Your task to perform on an android device: Open internet settings Image 0: 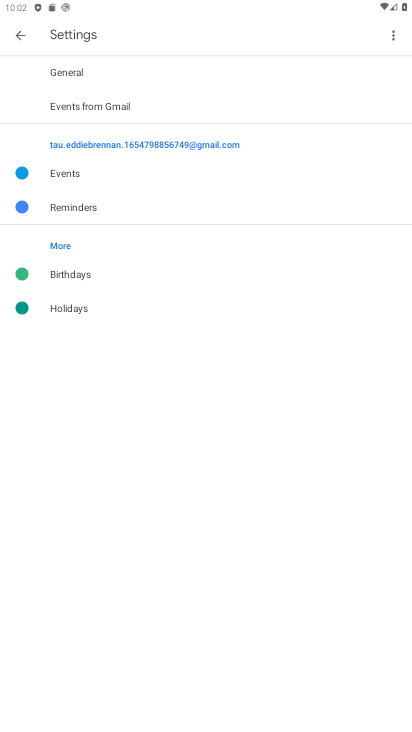
Step 0: press home button
Your task to perform on an android device: Open internet settings Image 1: 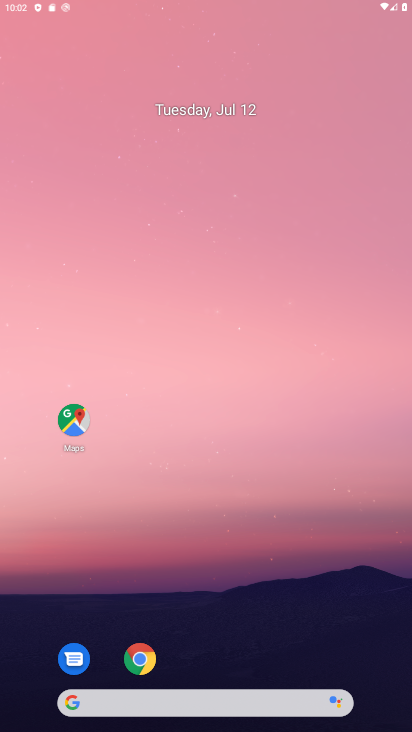
Step 1: drag from (197, 596) to (230, 254)
Your task to perform on an android device: Open internet settings Image 2: 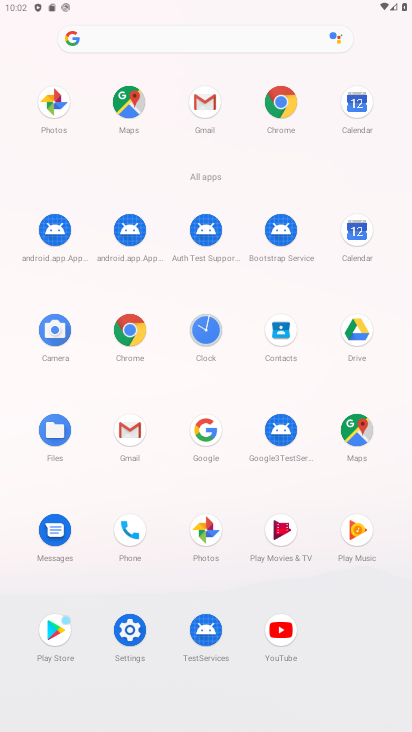
Step 2: click (127, 627)
Your task to perform on an android device: Open internet settings Image 3: 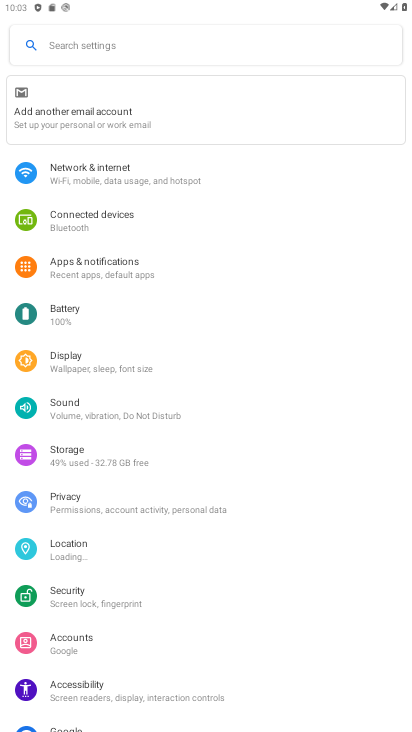
Step 3: click (125, 175)
Your task to perform on an android device: Open internet settings Image 4: 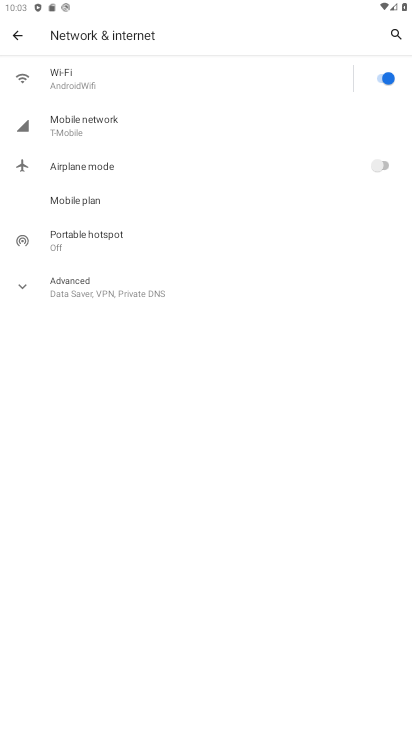
Step 4: task complete